Your task to perform on an android device: change your default location settings in chrome Image 0: 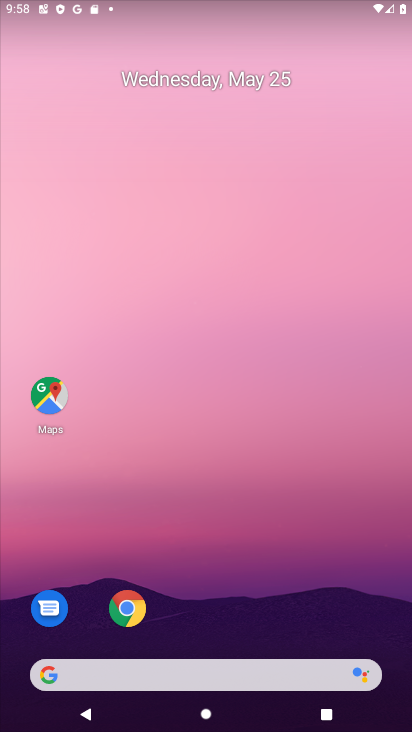
Step 0: click (136, 602)
Your task to perform on an android device: change your default location settings in chrome Image 1: 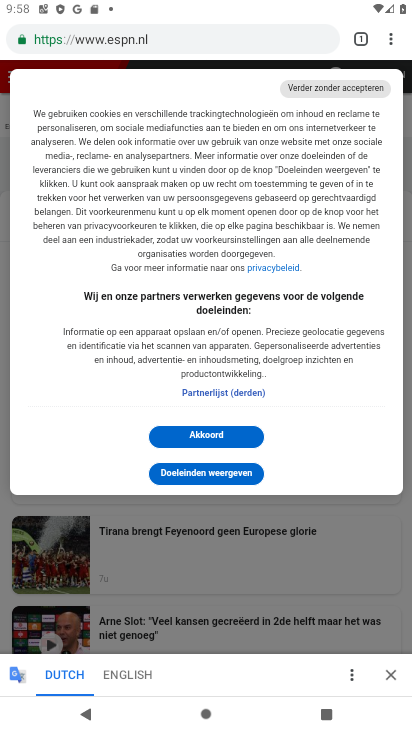
Step 1: click (388, 40)
Your task to perform on an android device: change your default location settings in chrome Image 2: 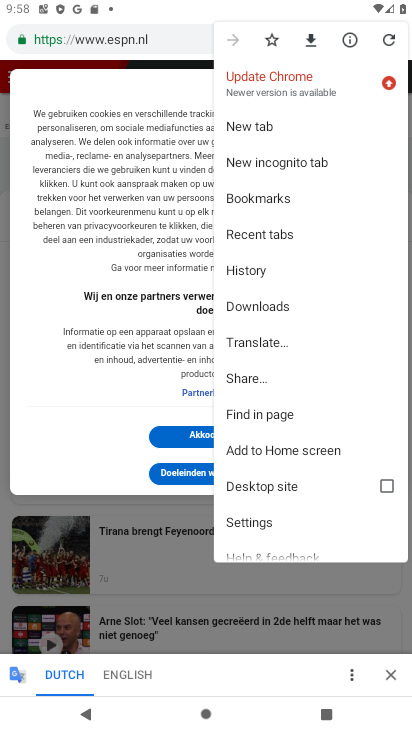
Step 2: click (259, 521)
Your task to perform on an android device: change your default location settings in chrome Image 3: 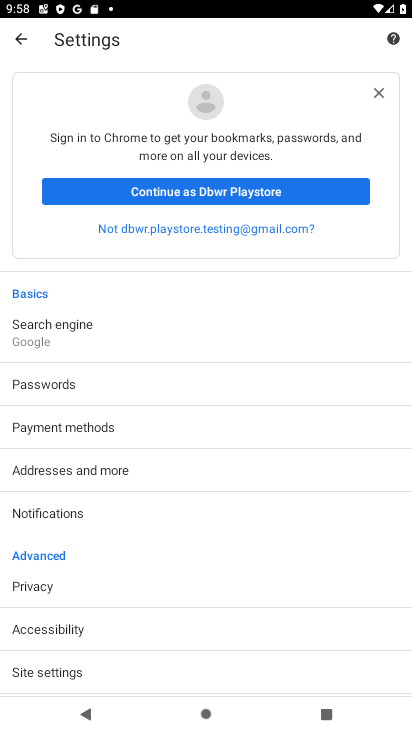
Step 3: drag from (139, 517) to (141, 312)
Your task to perform on an android device: change your default location settings in chrome Image 4: 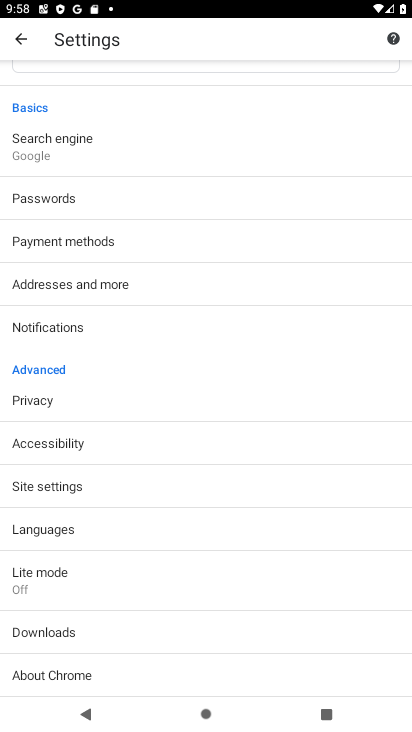
Step 4: click (56, 488)
Your task to perform on an android device: change your default location settings in chrome Image 5: 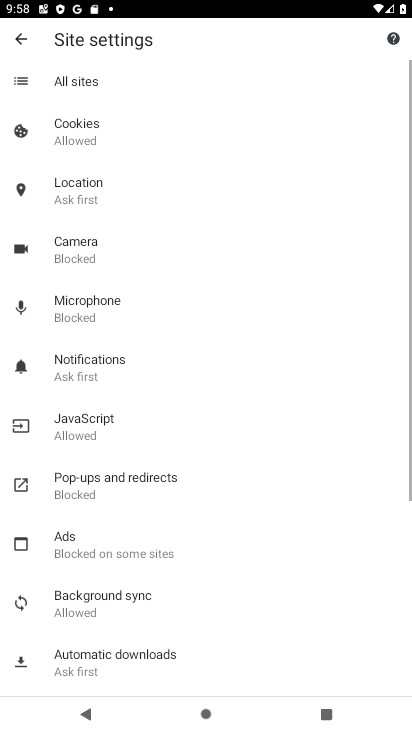
Step 5: click (97, 191)
Your task to perform on an android device: change your default location settings in chrome Image 6: 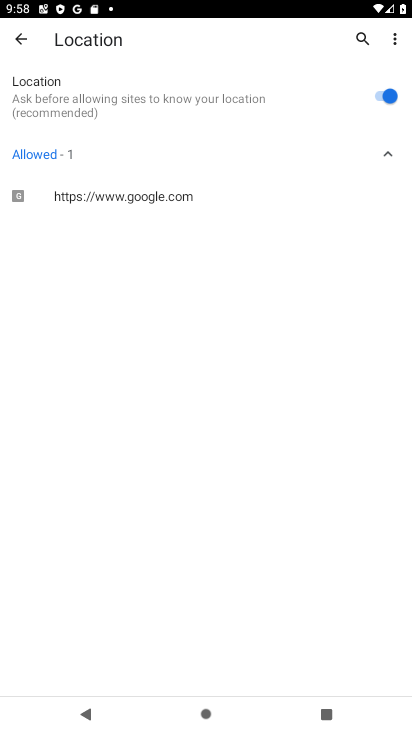
Step 6: click (383, 93)
Your task to perform on an android device: change your default location settings in chrome Image 7: 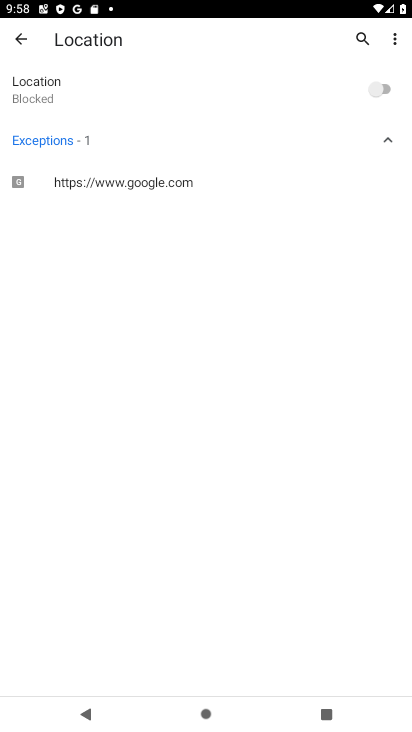
Step 7: task complete